Your task to perform on an android device: delete location history Image 0: 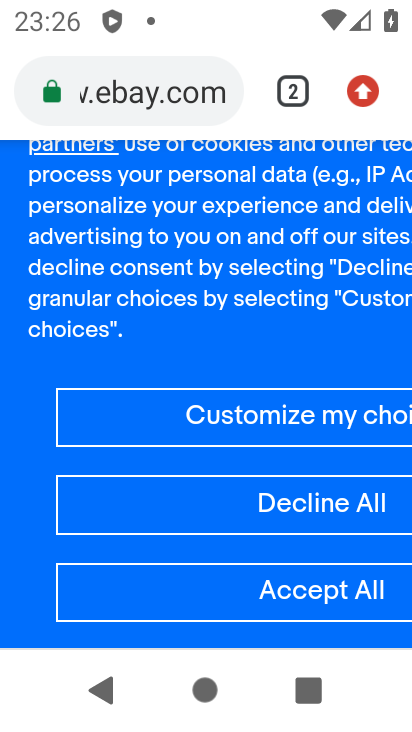
Step 0: drag from (360, 97) to (142, 406)
Your task to perform on an android device: delete location history Image 1: 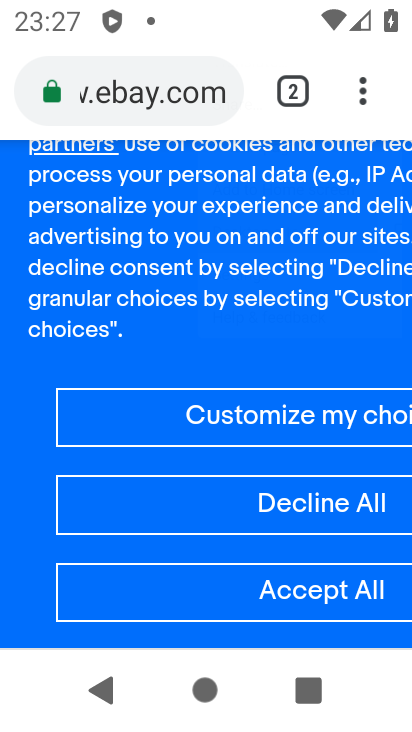
Step 1: press home button
Your task to perform on an android device: delete location history Image 2: 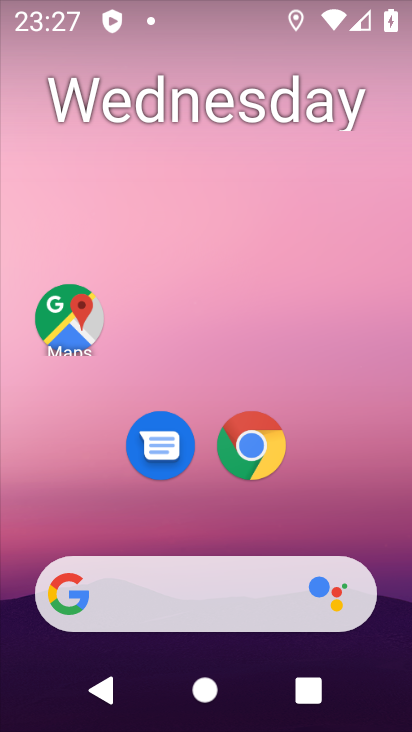
Step 2: click (71, 329)
Your task to perform on an android device: delete location history Image 3: 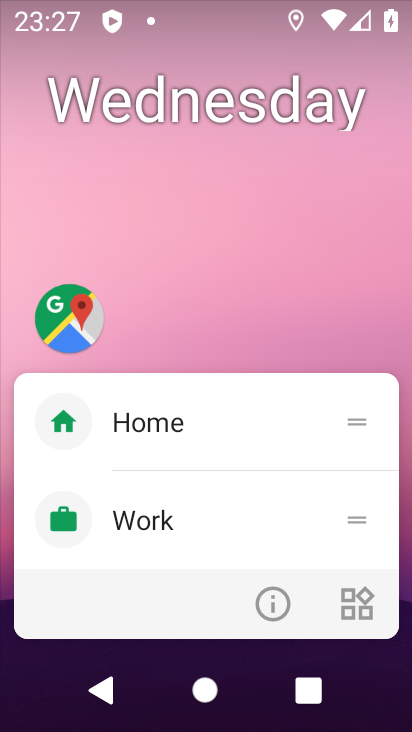
Step 3: click (77, 292)
Your task to perform on an android device: delete location history Image 4: 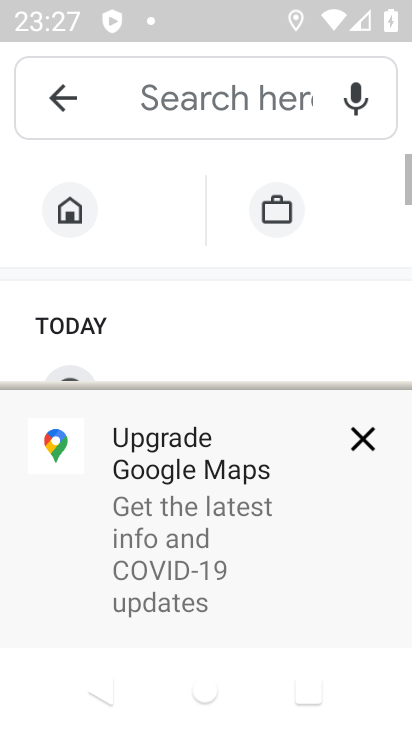
Step 4: click (375, 443)
Your task to perform on an android device: delete location history Image 5: 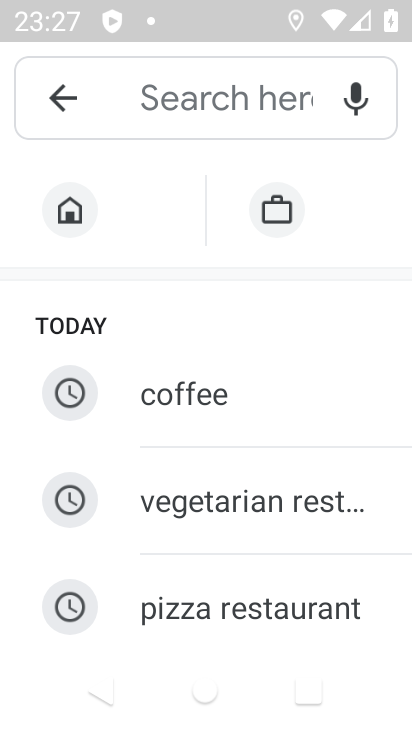
Step 5: click (62, 92)
Your task to perform on an android device: delete location history Image 6: 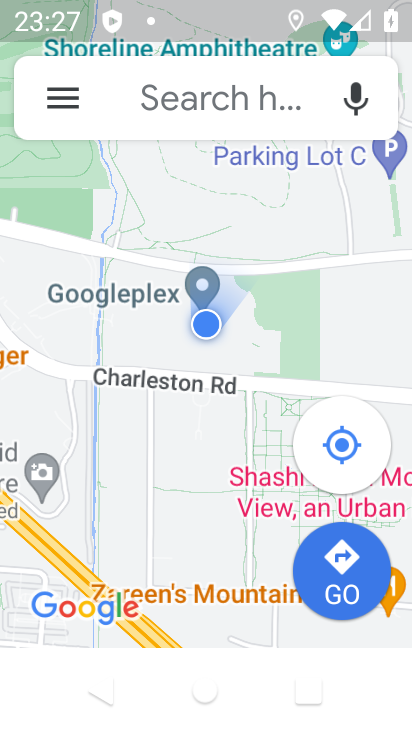
Step 6: click (61, 87)
Your task to perform on an android device: delete location history Image 7: 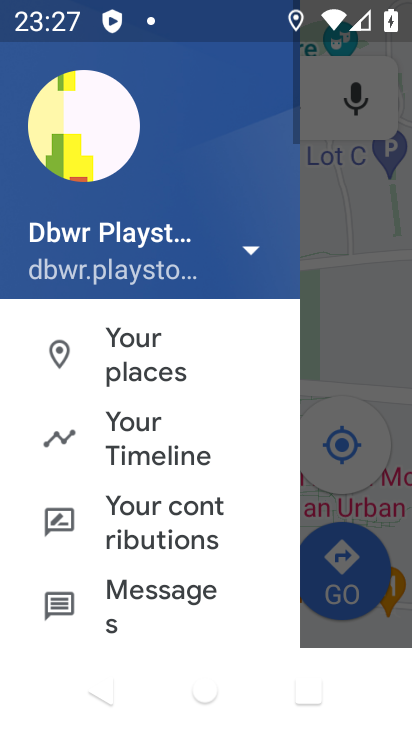
Step 7: click (209, 442)
Your task to perform on an android device: delete location history Image 8: 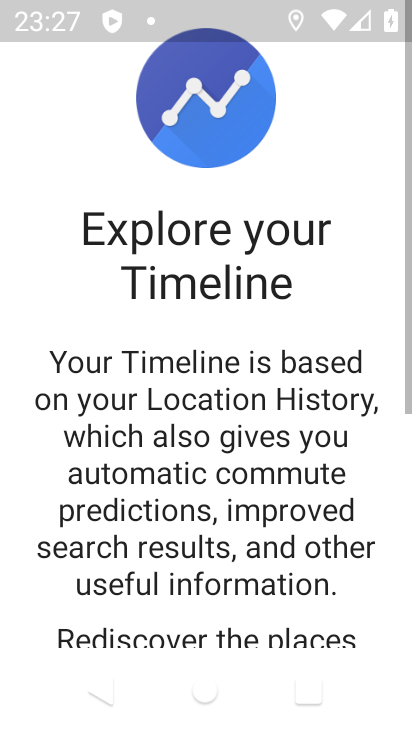
Step 8: drag from (218, 520) to (281, 86)
Your task to perform on an android device: delete location history Image 9: 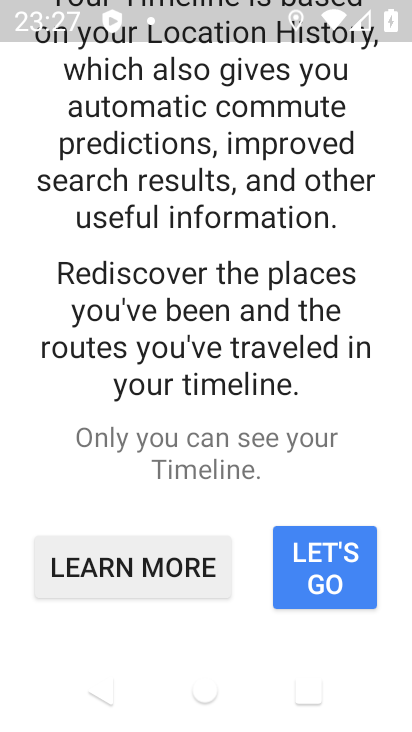
Step 9: click (323, 561)
Your task to perform on an android device: delete location history Image 10: 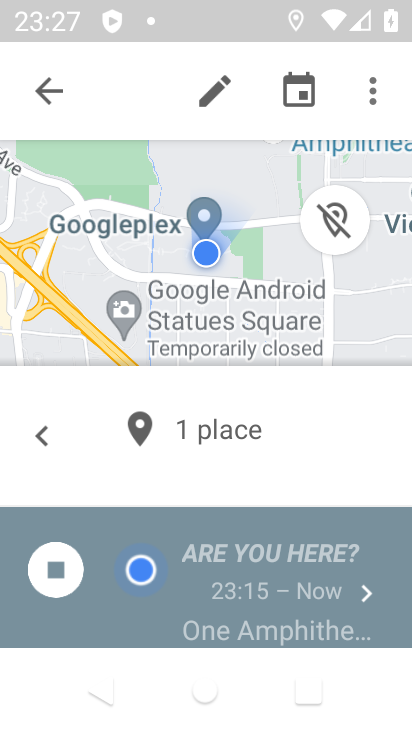
Step 10: drag from (375, 85) to (309, 186)
Your task to perform on an android device: delete location history Image 11: 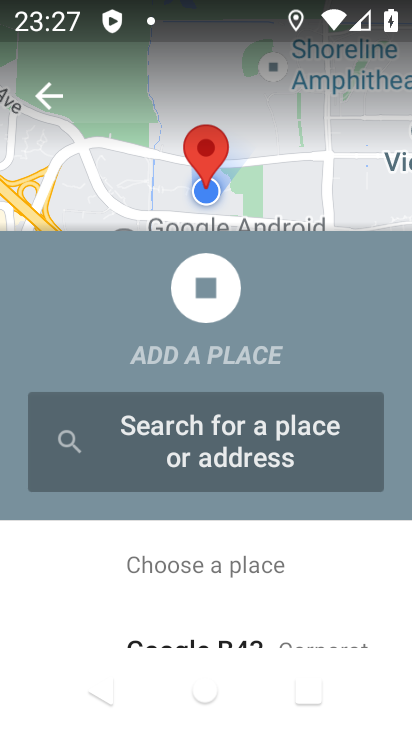
Step 11: click (45, 83)
Your task to perform on an android device: delete location history Image 12: 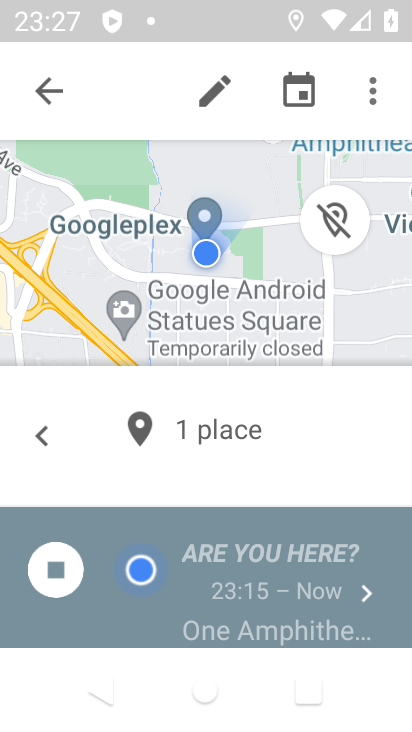
Step 12: click (377, 94)
Your task to perform on an android device: delete location history Image 13: 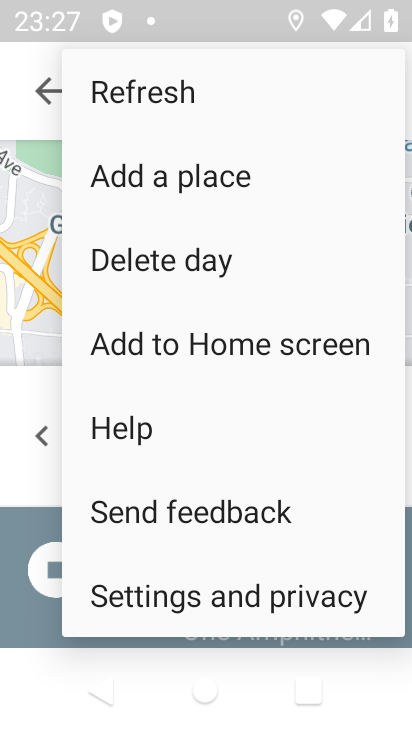
Step 13: click (174, 585)
Your task to perform on an android device: delete location history Image 14: 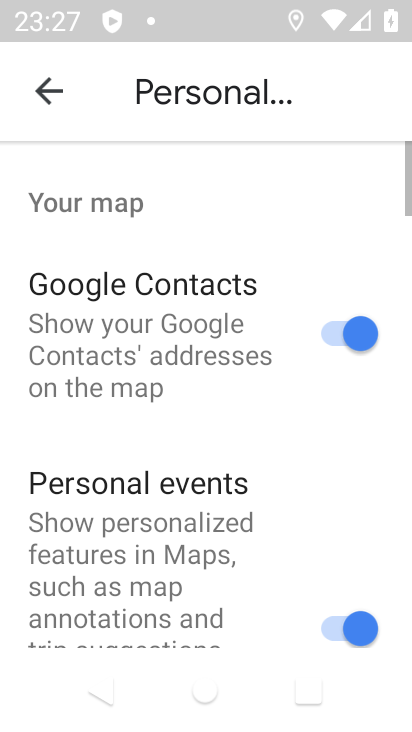
Step 14: drag from (176, 599) to (256, 75)
Your task to perform on an android device: delete location history Image 15: 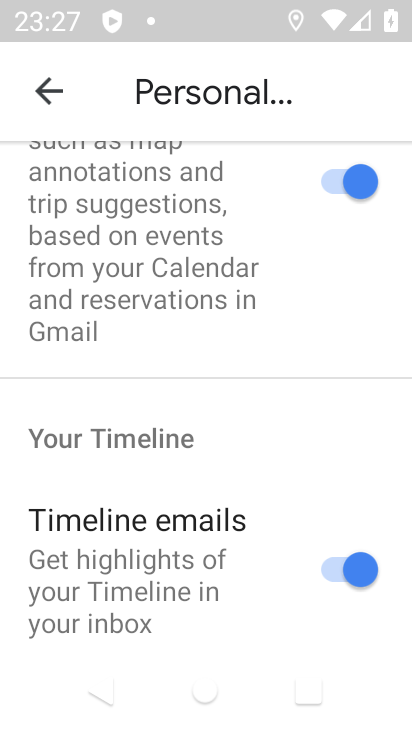
Step 15: drag from (166, 589) to (274, 37)
Your task to perform on an android device: delete location history Image 16: 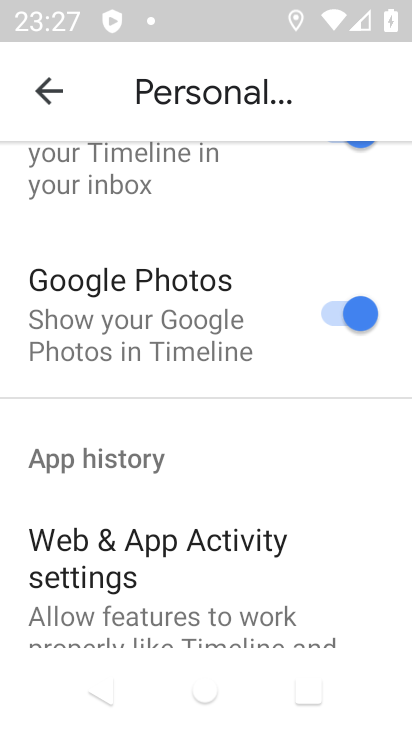
Step 16: drag from (202, 514) to (268, 56)
Your task to perform on an android device: delete location history Image 17: 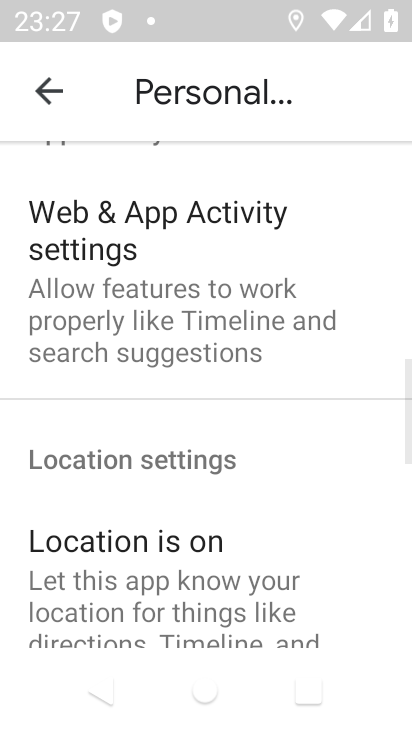
Step 17: drag from (194, 544) to (231, 127)
Your task to perform on an android device: delete location history Image 18: 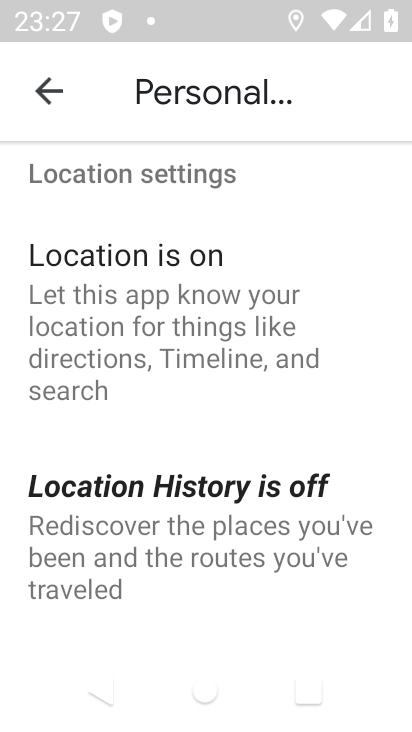
Step 18: drag from (188, 606) to (292, 222)
Your task to perform on an android device: delete location history Image 19: 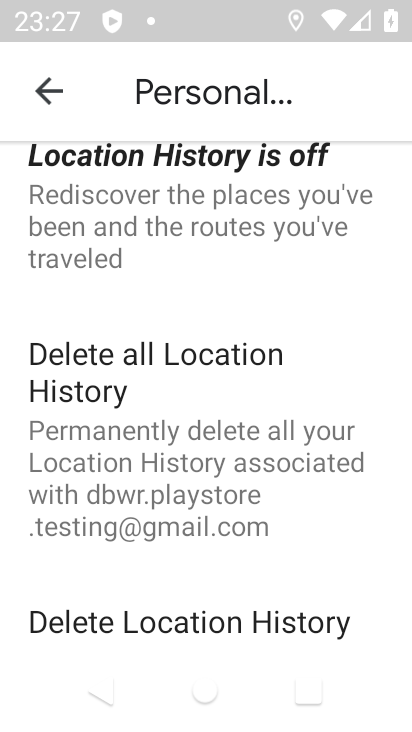
Step 19: click (91, 393)
Your task to perform on an android device: delete location history Image 20: 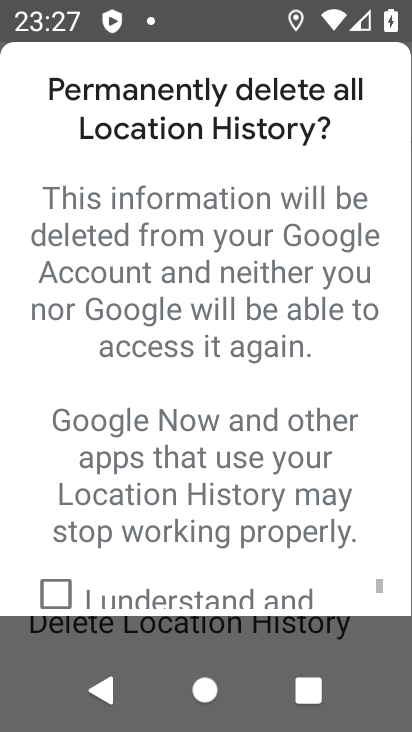
Step 20: drag from (210, 527) to (326, 82)
Your task to perform on an android device: delete location history Image 21: 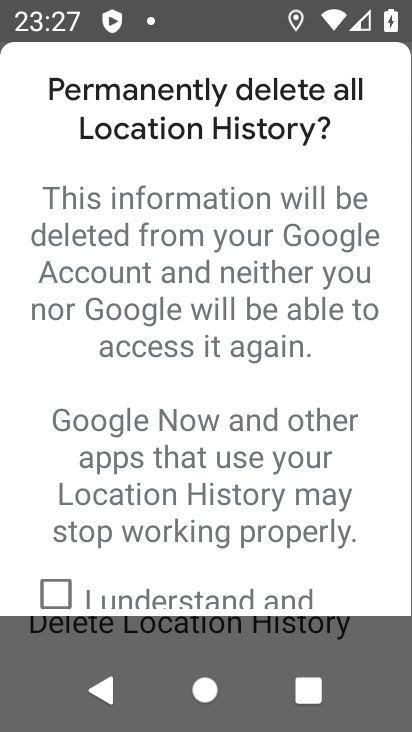
Step 21: click (62, 590)
Your task to perform on an android device: delete location history Image 22: 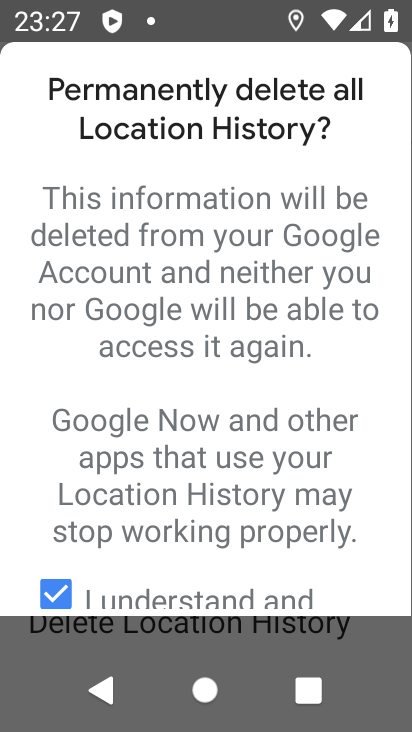
Step 22: task complete